Your task to perform on an android device: open sync settings in chrome Image 0: 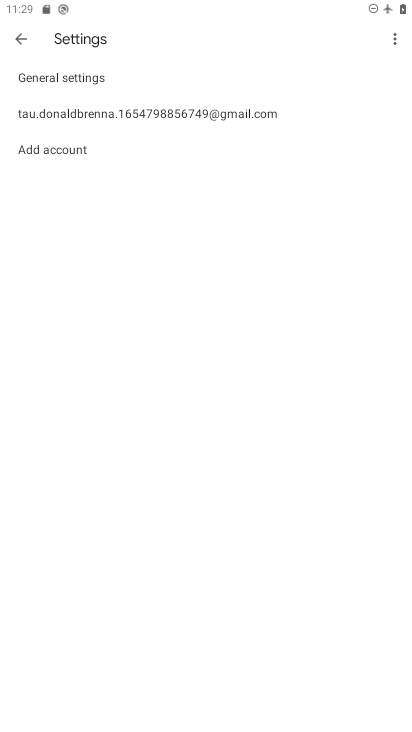
Step 0: press home button
Your task to perform on an android device: open sync settings in chrome Image 1: 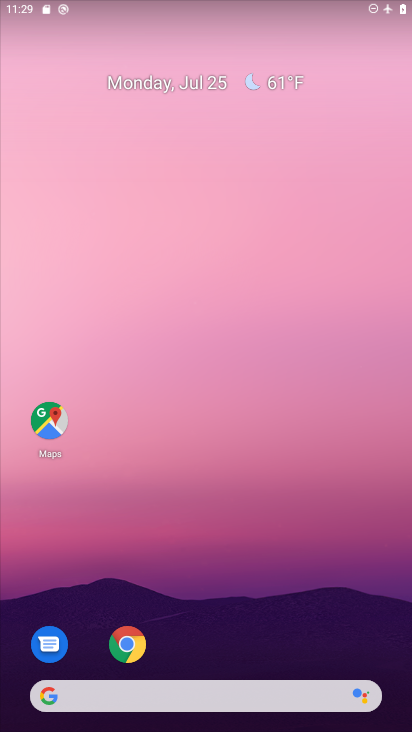
Step 1: click (132, 650)
Your task to perform on an android device: open sync settings in chrome Image 2: 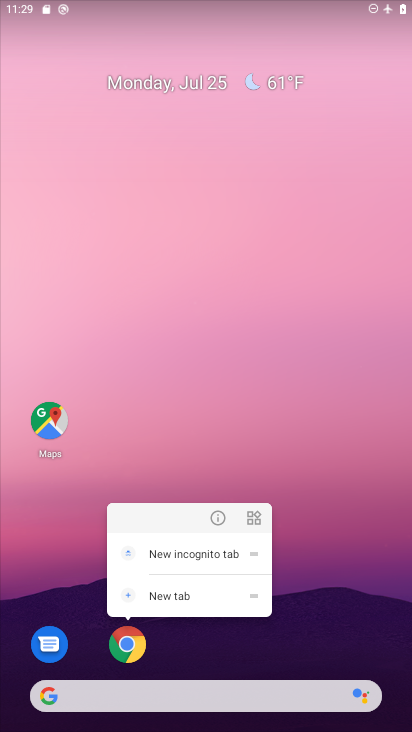
Step 2: click (119, 646)
Your task to perform on an android device: open sync settings in chrome Image 3: 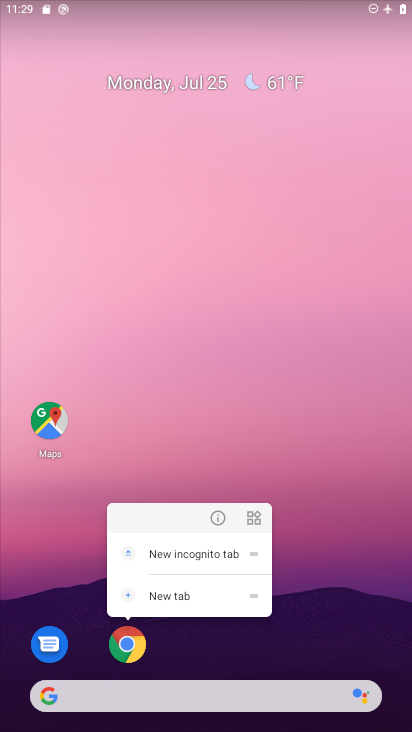
Step 3: click (119, 646)
Your task to perform on an android device: open sync settings in chrome Image 4: 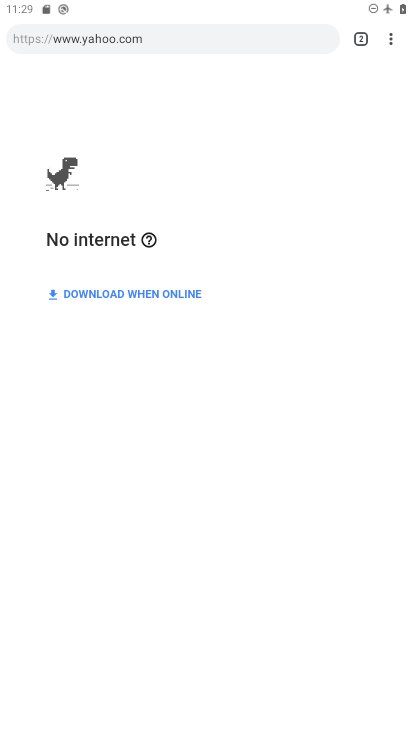
Step 4: click (395, 27)
Your task to perform on an android device: open sync settings in chrome Image 5: 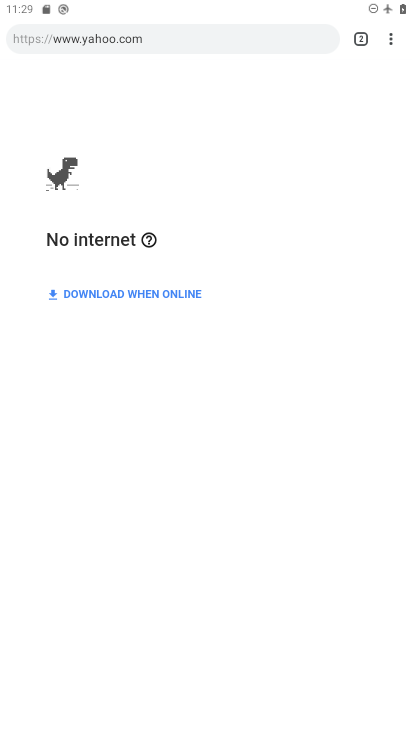
Step 5: click (395, 37)
Your task to perform on an android device: open sync settings in chrome Image 6: 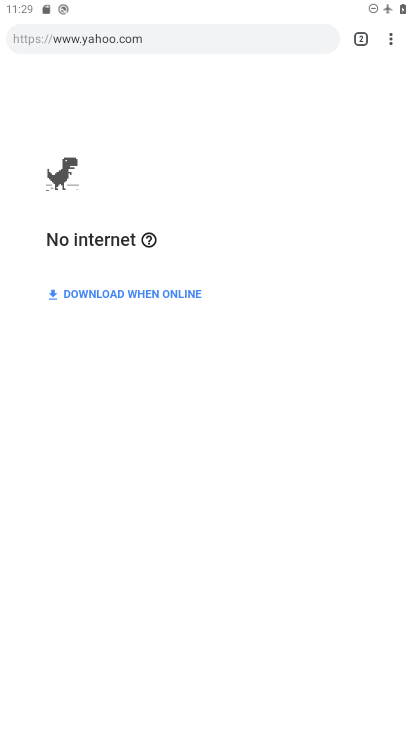
Step 6: click (395, 37)
Your task to perform on an android device: open sync settings in chrome Image 7: 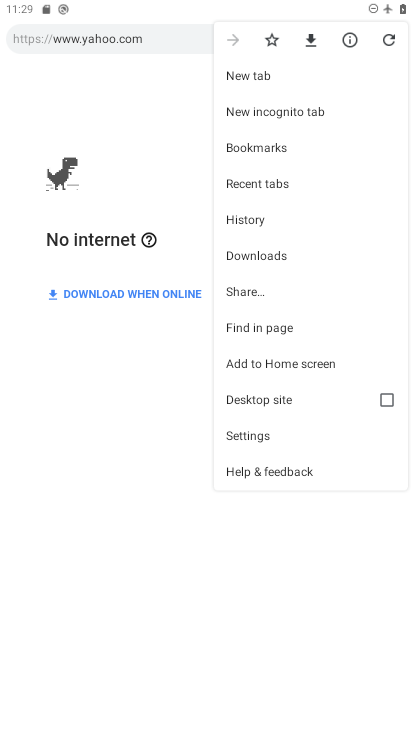
Step 7: click (245, 430)
Your task to perform on an android device: open sync settings in chrome Image 8: 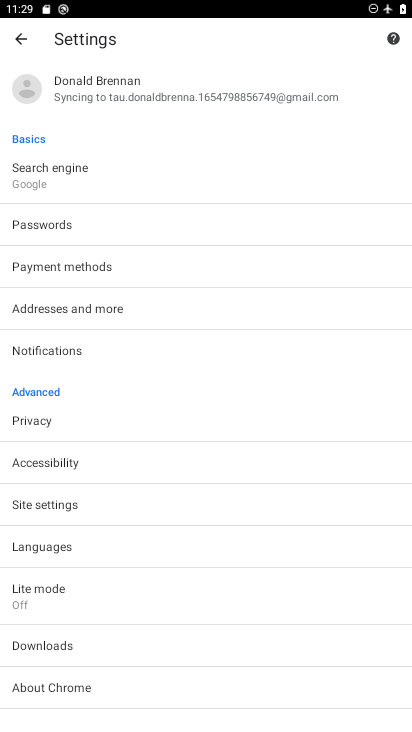
Step 8: click (127, 79)
Your task to perform on an android device: open sync settings in chrome Image 9: 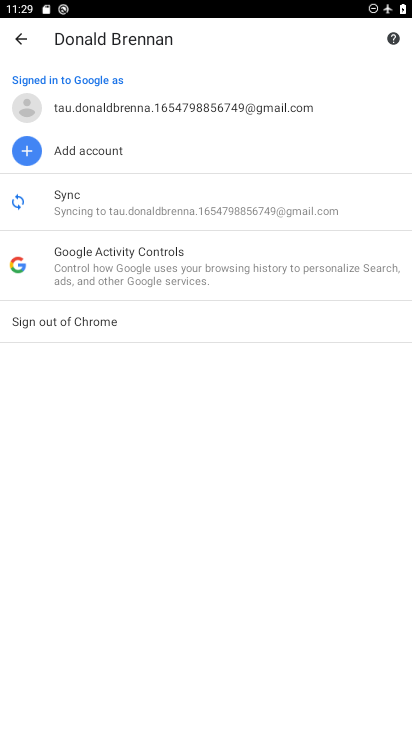
Step 9: click (125, 213)
Your task to perform on an android device: open sync settings in chrome Image 10: 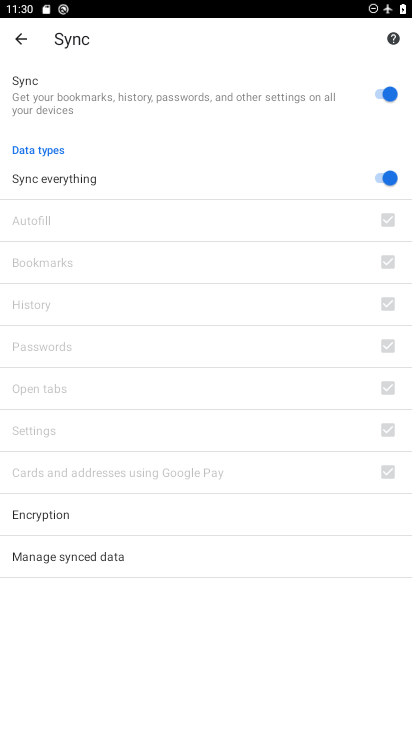
Step 10: task complete